Your task to perform on an android device: Do I have any events tomorrow? Image 0: 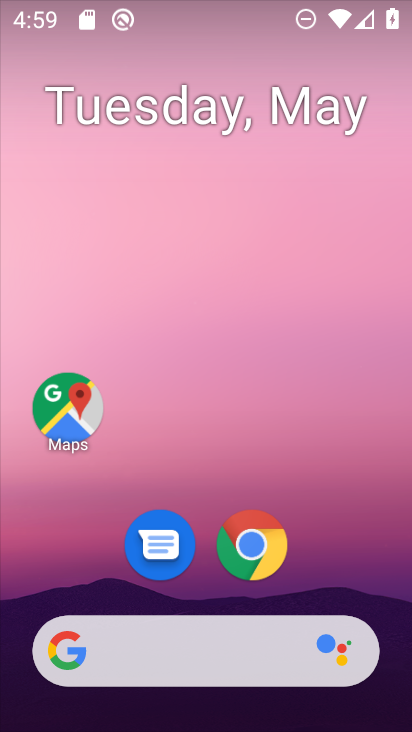
Step 0: drag from (326, 569) to (261, 18)
Your task to perform on an android device: Do I have any events tomorrow? Image 1: 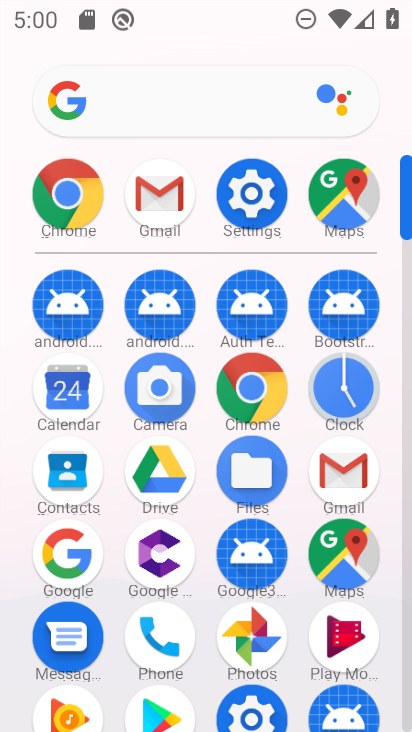
Step 1: click (72, 389)
Your task to perform on an android device: Do I have any events tomorrow? Image 2: 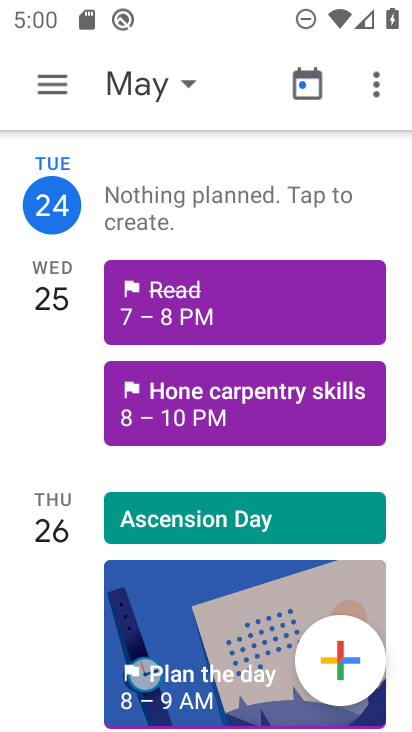
Step 2: click (47, 300)
Your task to perform on an android device: Do I have any events tomorrow? Image 3: 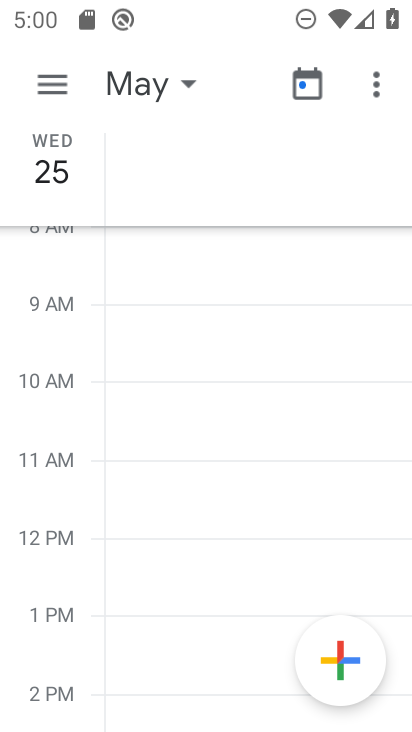
Step 3: task complete